Your task to perform on an android device: Open accessibility settings Image 0: 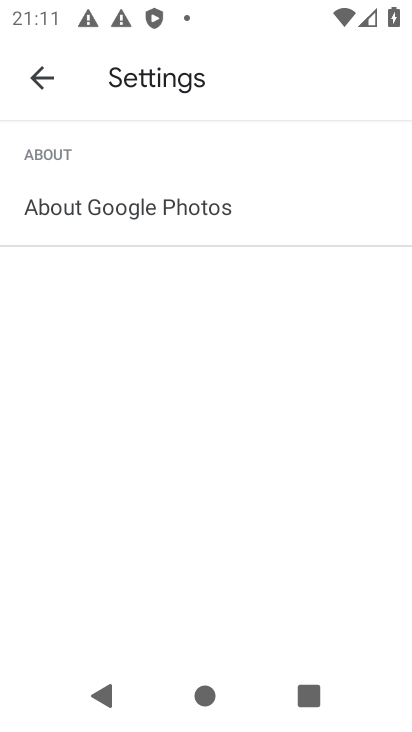
Step 0: press back button
Your task to perform on an android device: Open accessibility settings Image 1: 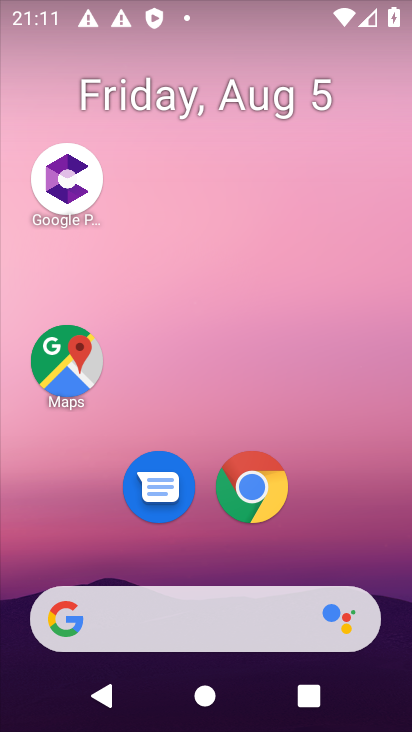
Step 1: drag from (222, 547) to (125, 9)
Your task to perform on an android device: Open accessibility settings Image 2: 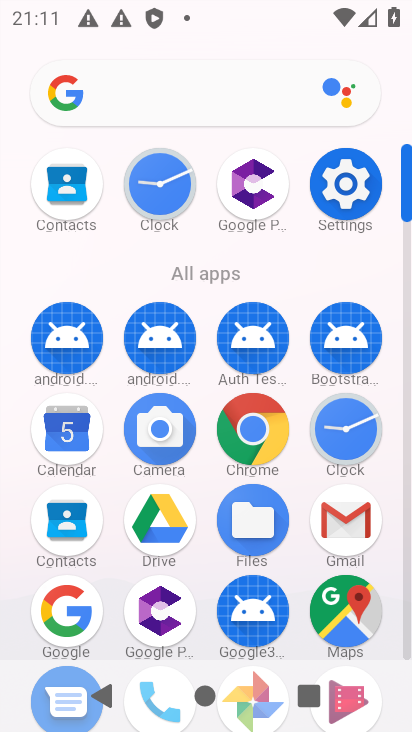
Step 2: click (334, 180)
Your task to perform on an android device: Open accessibility settings Image 3: 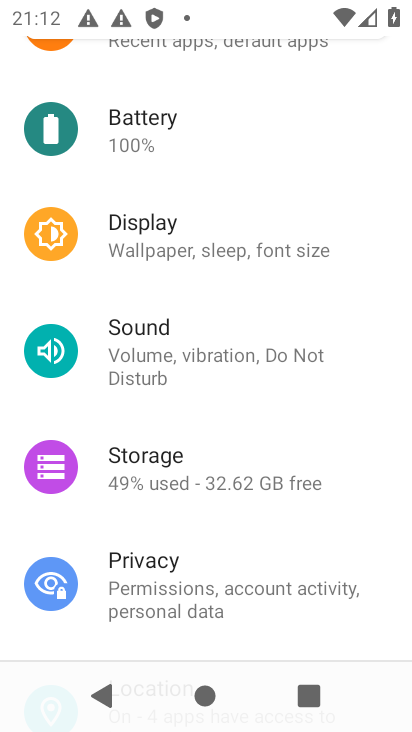
Step 3: drag from (339, 494) to (307, 57)
Your task to perform on an android device: Open accessibility settings Image 4: 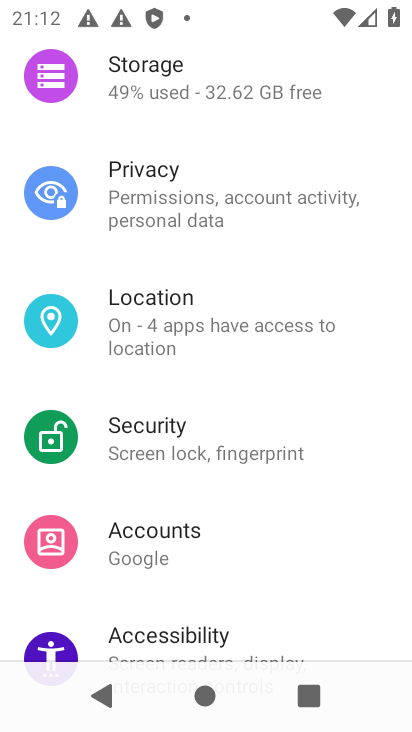
Step 4: click (118, 613)
Your task to perform on an android device: Open accessibility settings Image 5: 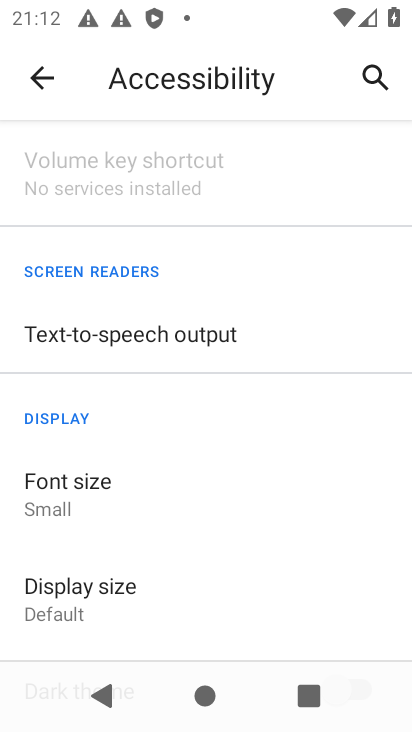
Step 5: task complete